Your task to perform on an android device: empty trash in google photos Image 0: 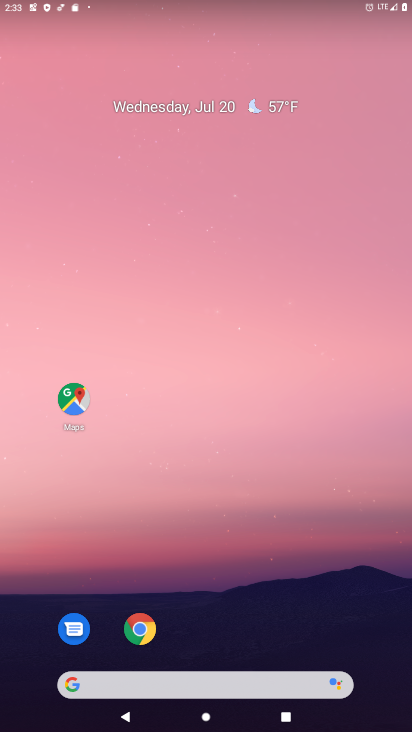
Step 0: drag from (373, 633) to (366, 137)
Your task to perform on an android device: empty trash in google photos Image 1: 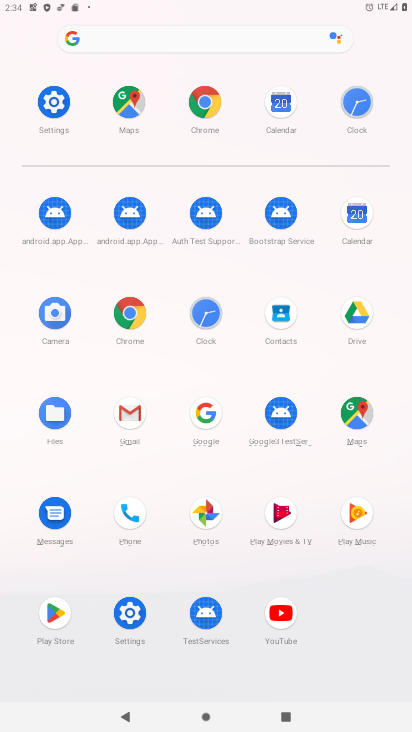
Step 1: click (206, 515)
Your task to perform on an android device: empty trash in google photos Image 2: 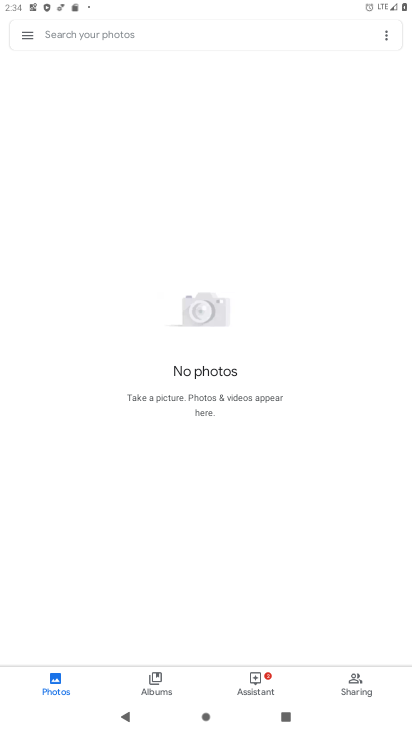
Step 2: click (23, 35)
Your task to perform on an android device: empty trash in google photos Image 3: 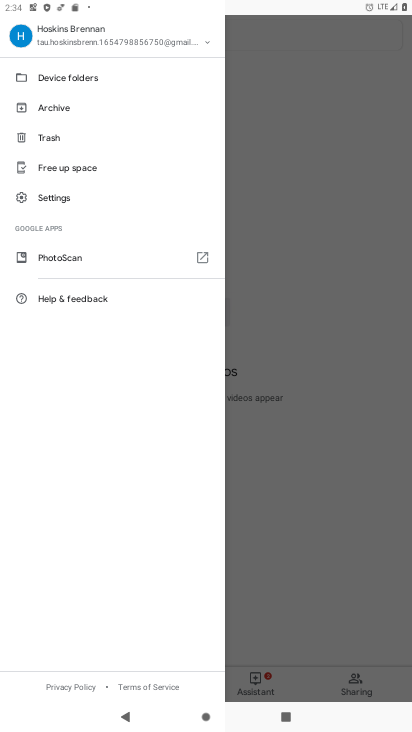
Step 3: click (46, 138)
Your task to perform on an android device: empty trash in google photos Image 4: 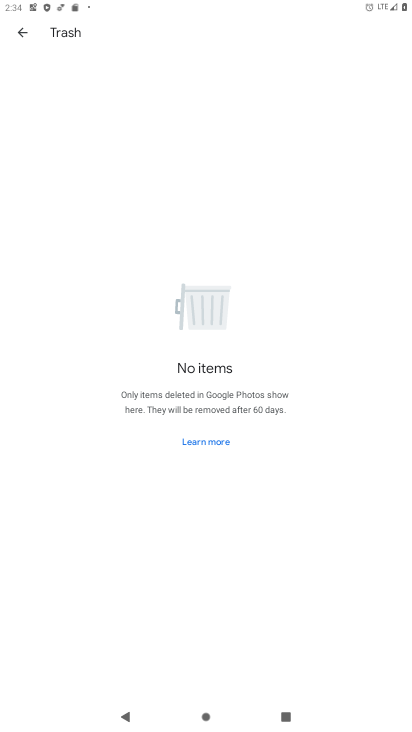
Step 4: task complete